Your task to perform on an android device: toggle notification dots Image 0: 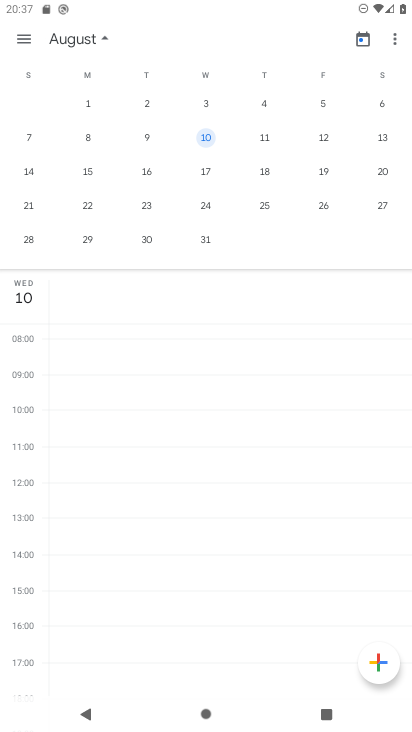
Step 0: press home button
Your task to perform on an android device: toggle notification dots Image 1: 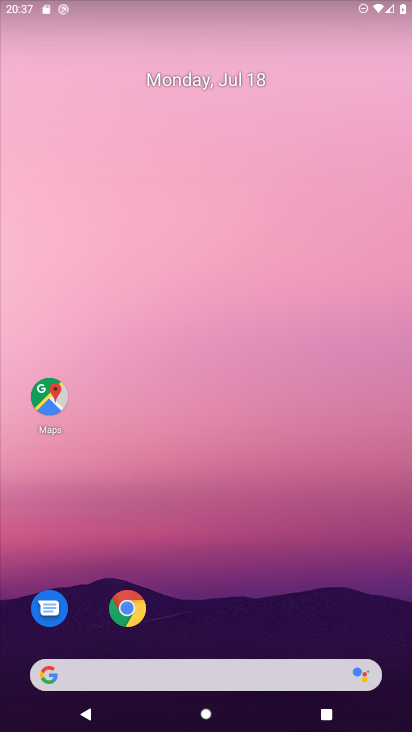
Step 1: drag from (270, 662) to (287, 155)
Your task to perform on an android device: toggle notification dots Image 2: 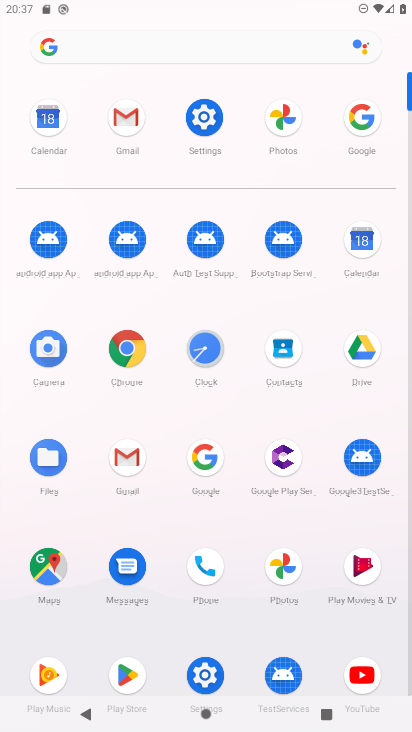
Step 2: click (203, 106)
Your task to perform on an android device: toggle notification dots Image 3: 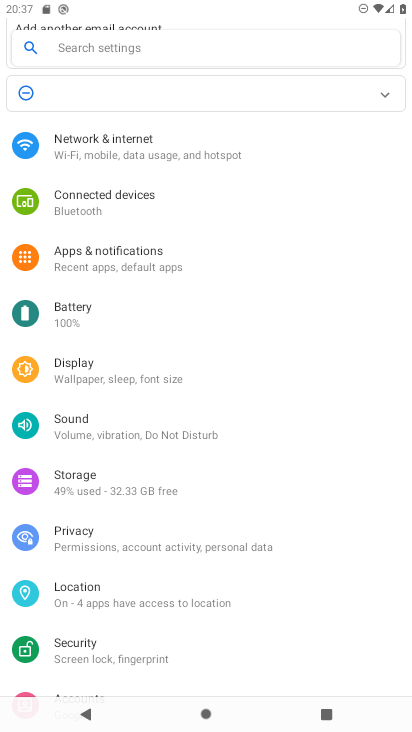
Step 3: click (162, 259)
Your task to perform on an android device: toggle notification dots Image 4: 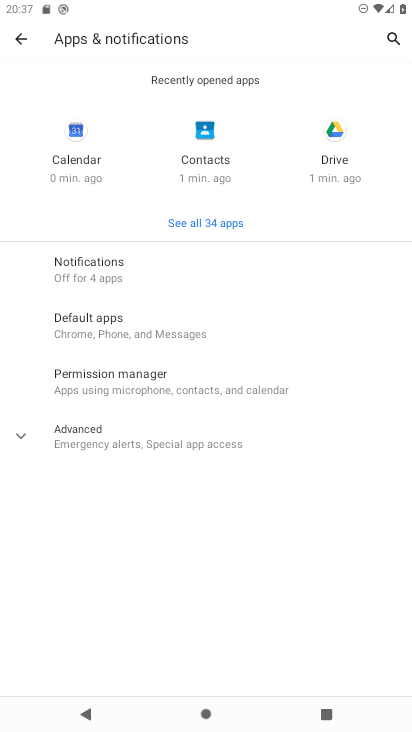
Step 4: click (81, 280)
Your task to perform on an android device: toggle notification dots Image 5: 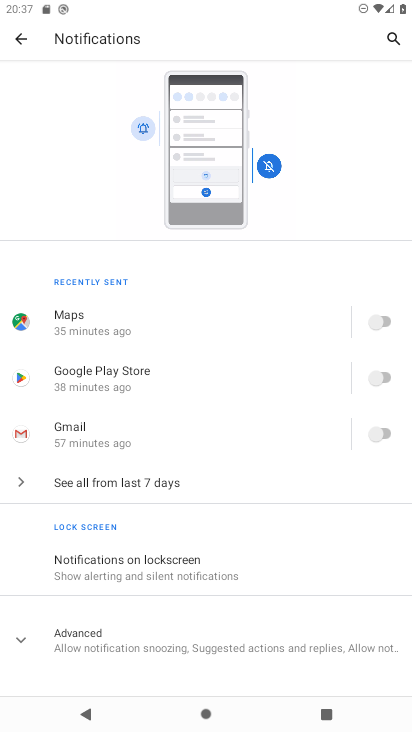
Step 5: click (74, 642)
Your task to perform on an android device: toggle notification dots Image 6: 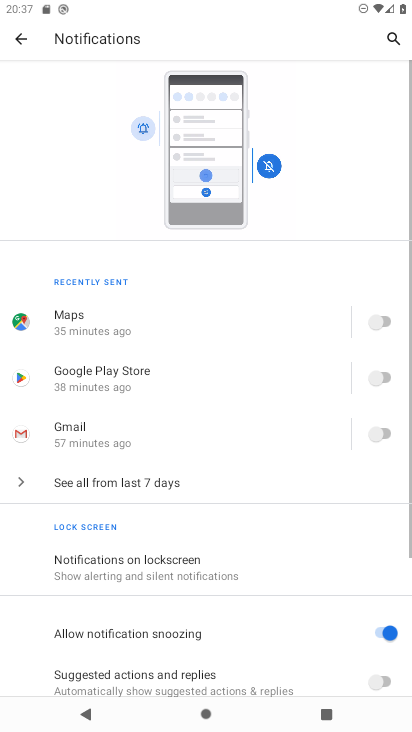
Step 6: drag from (272, 595) to (304, 100)
Your task to perform on an android device: toggle notification dots Image 7: 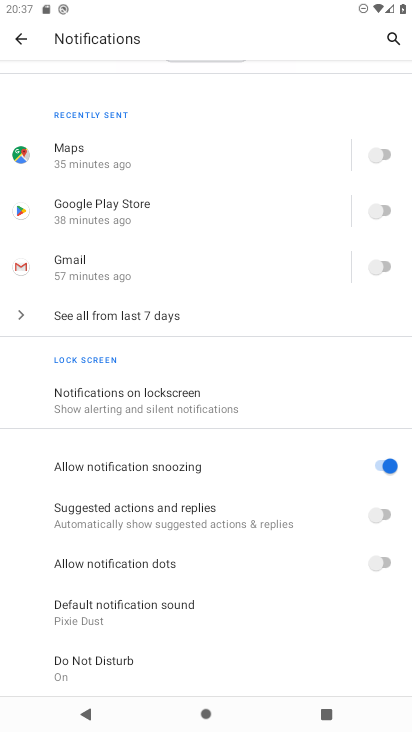
Step 7: click (382, 564)
Your task to perform on an android device: toggle notification dots Image 8: 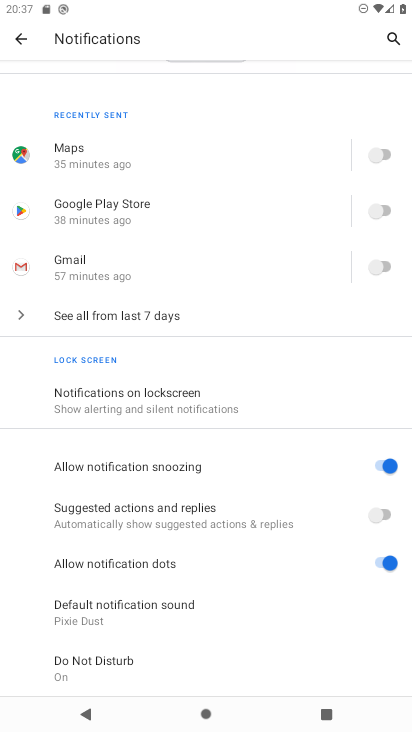
Step 8: task complete